Your task to perform on an android device: Check the news Image 0: 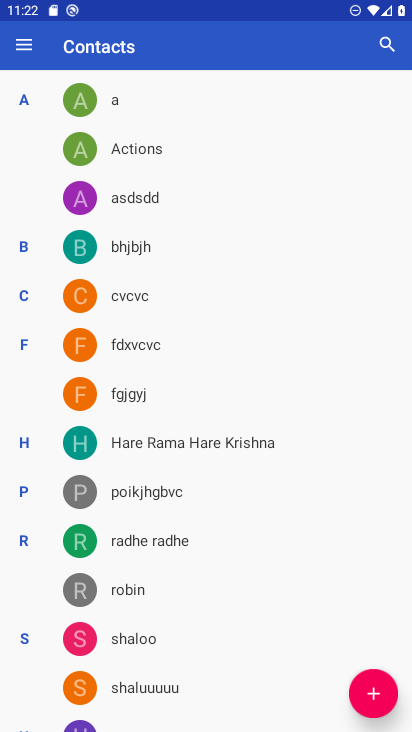
Step 0: press home button
Your task to perform on an android device: Check the news Image 1: 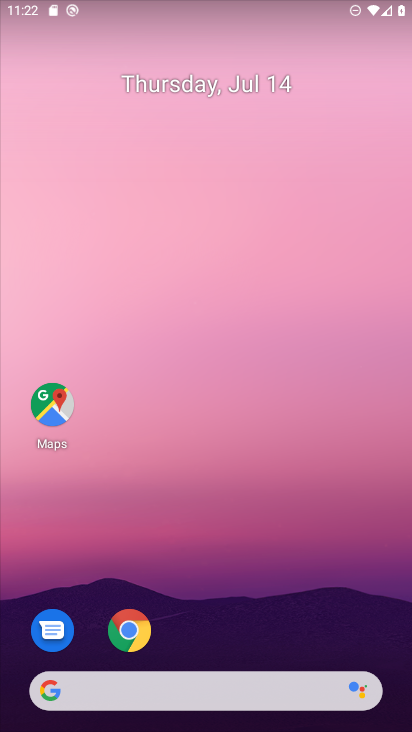
Step 1: drag from (207, 513) to (163, 1)
Your task to perform on an android device: Check the news Image 2: 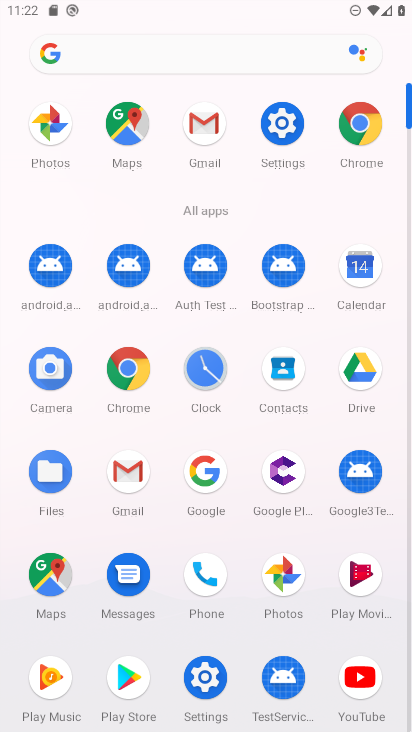
Step 2: click (353, 125)
Your task to perform on an android device: Check the news Image 3: 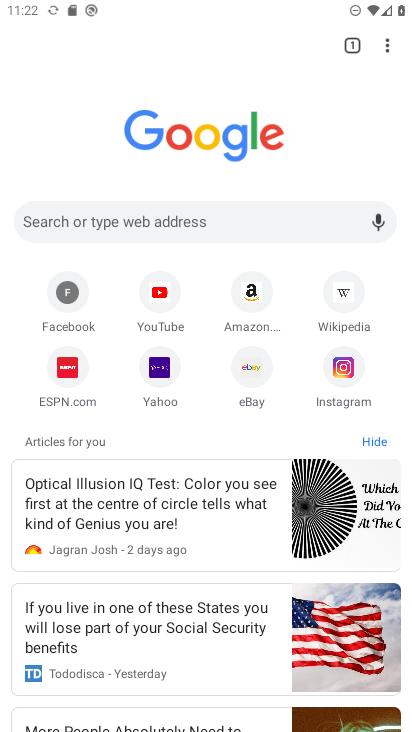
Step 3: task complete